Your task to perform on an android device: turn on javascript in the chrome app Image 0: 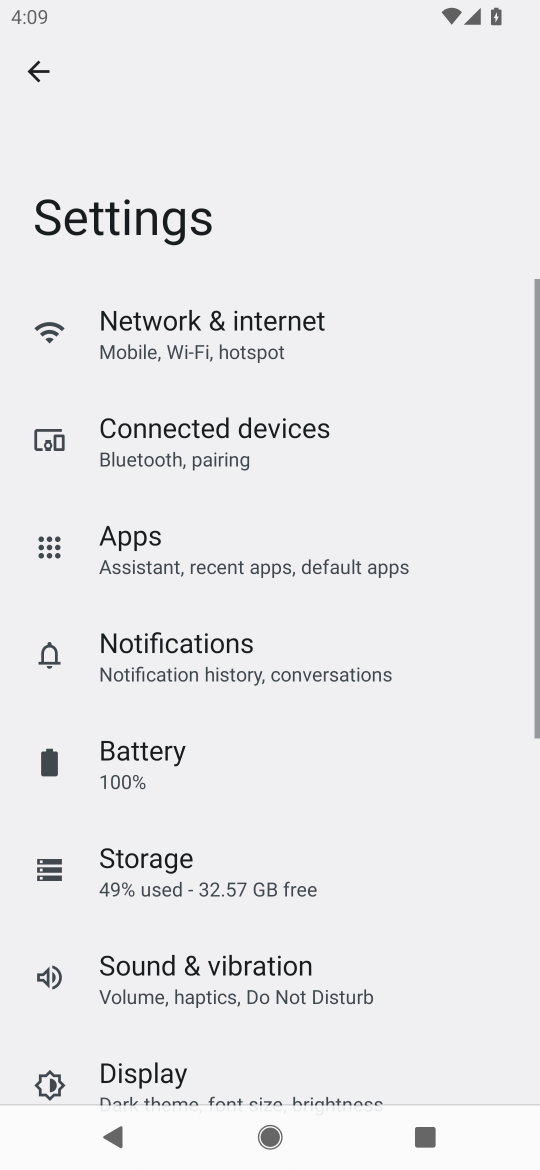
Step 0: press home button
Your task to perform on an android device: turn on javascript in the chrome app Image 1: 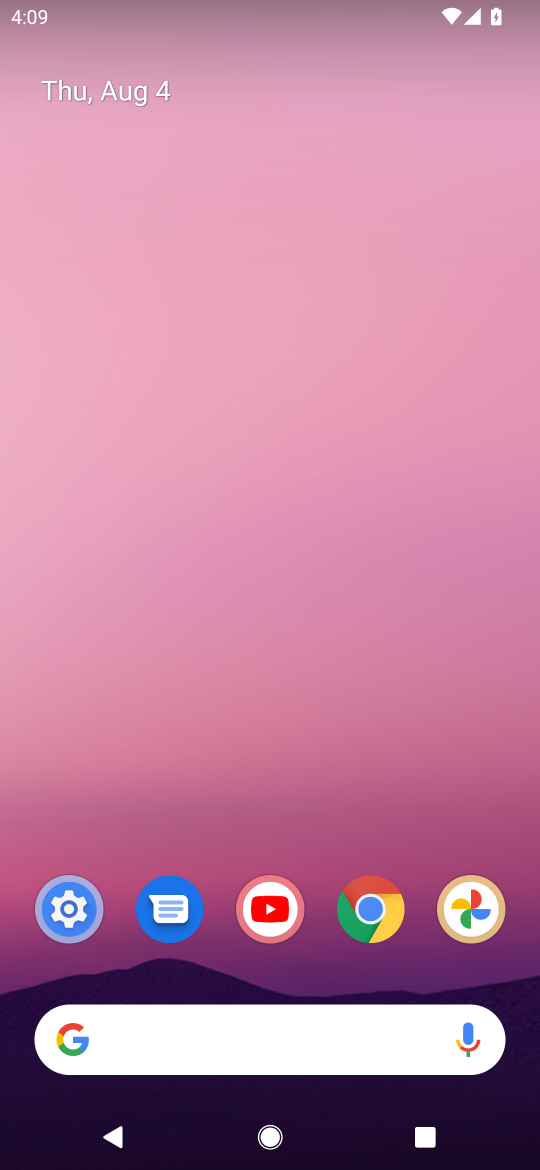
Step 1: click (383, 897)
Your task to perform on an android device: turn on javascript in the chrome app Image 2: 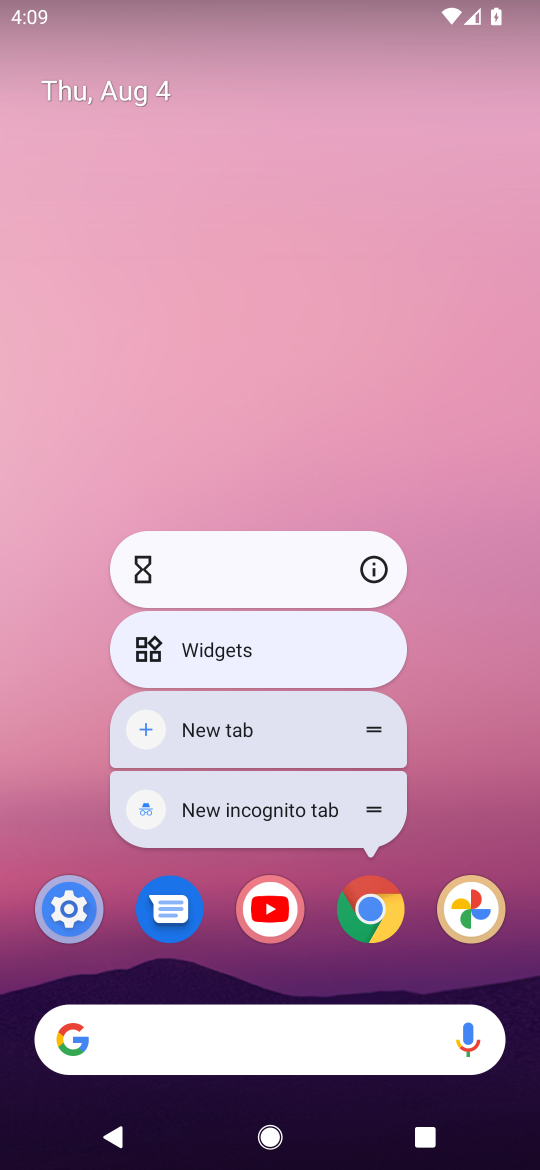
Step 2: click (383, 897)
Your task to perform on an android device: turn on javascript in the chrome app Image 3: 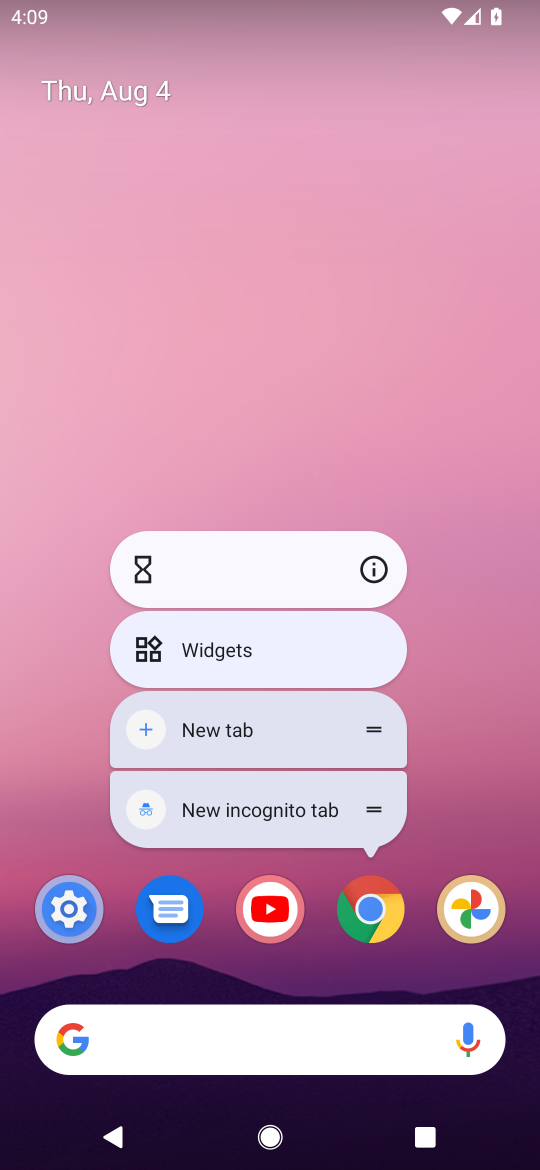
Step 3: click (367, 920)
Your task to perform on an android device: turn on javascript in the chrome app Image 4: 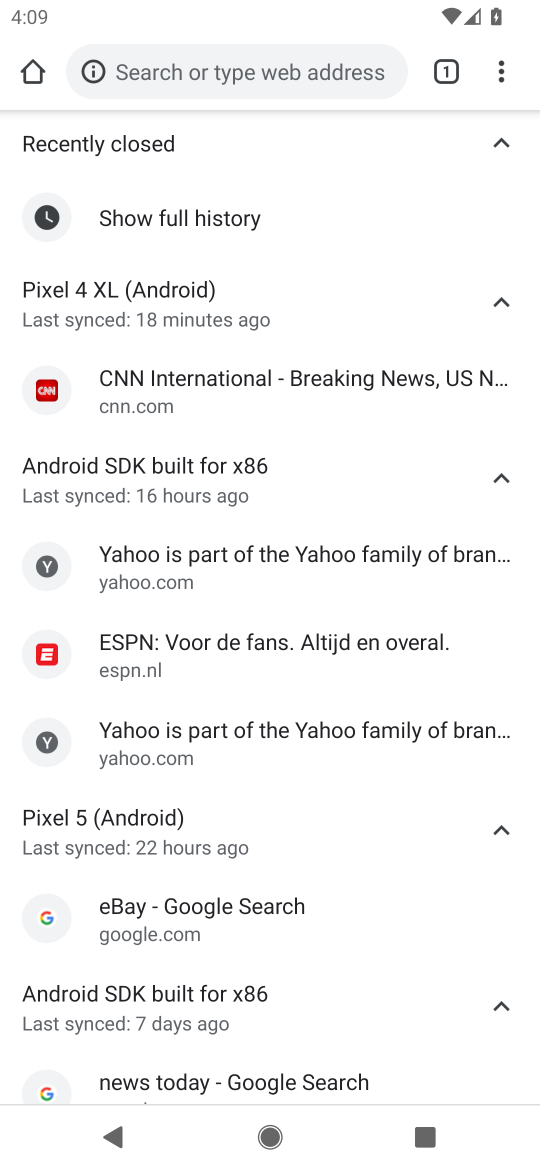
Step 4: click (503, 67)
Your task to perform on an android device: turn on javascript in the chrome app Image 5: 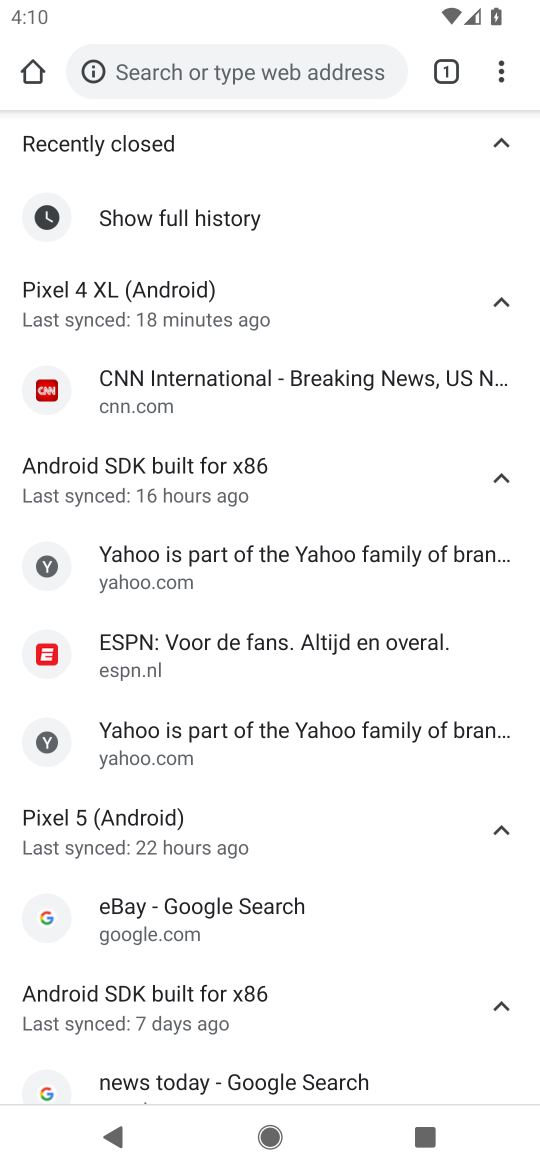
Step 5: drag from (493, 68) to (289, 657)
Your task to perform on an android device: turn on javascript in the chrome app Image 6: 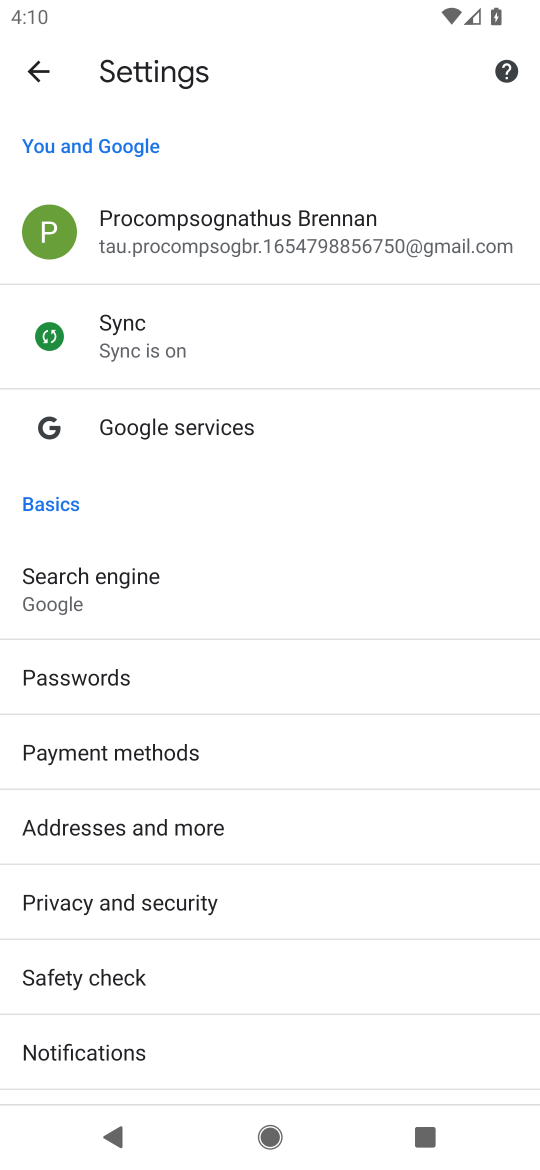
Step 6: drag from (356, 1052) to (386, 550)
Your task to perform on an android device: turn on javascript in the chrome app Image 7: 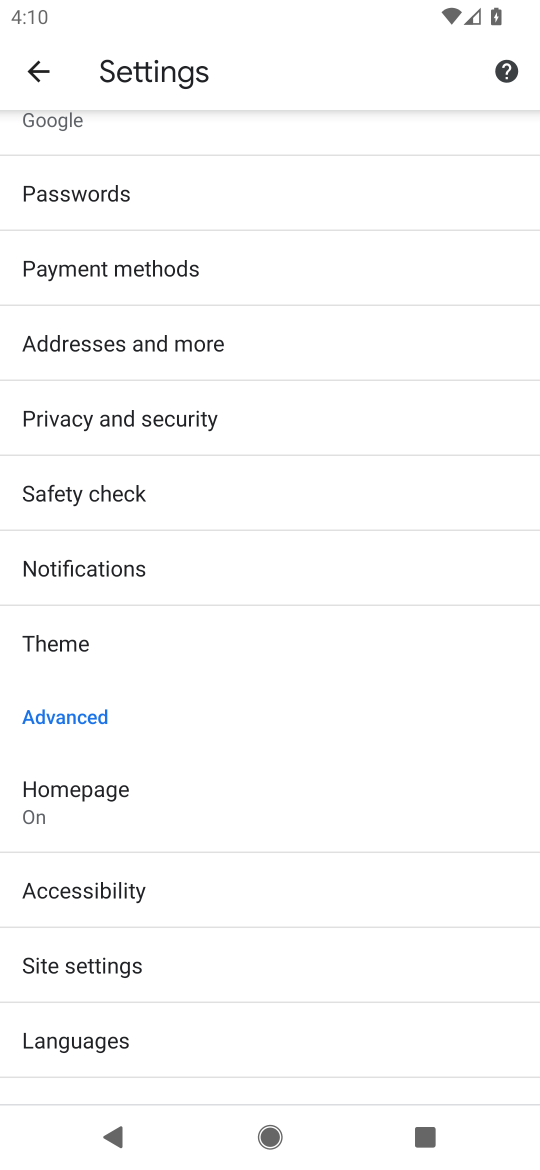
Step 7: click (81, 977)
Your task to perform on an android device: turn on javascript in the chrome app Image 8: 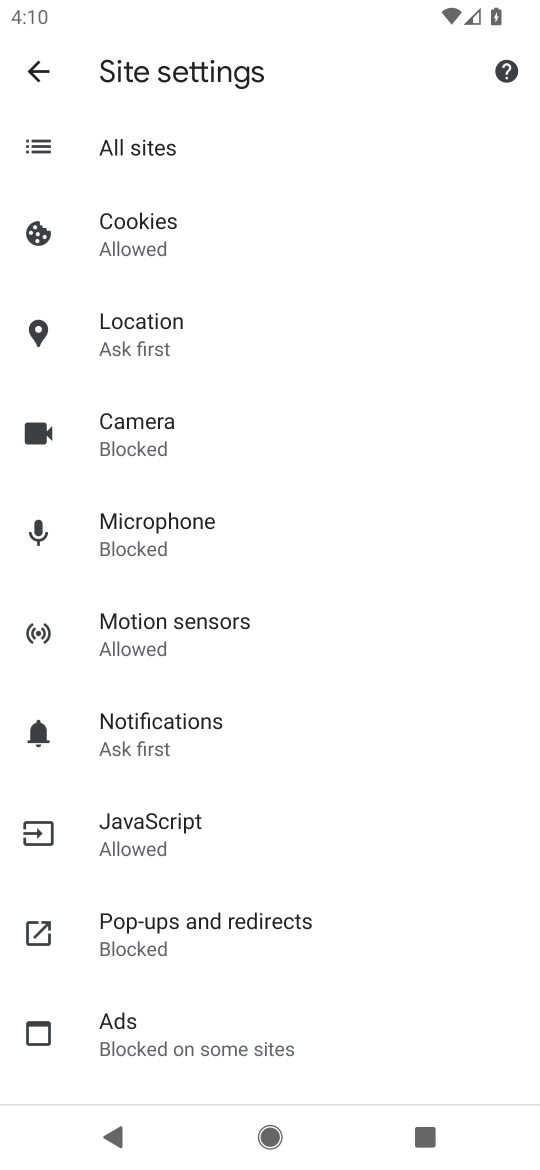
Step 8: task complete